Your task to perform on an android device: Open network settings Image 0: 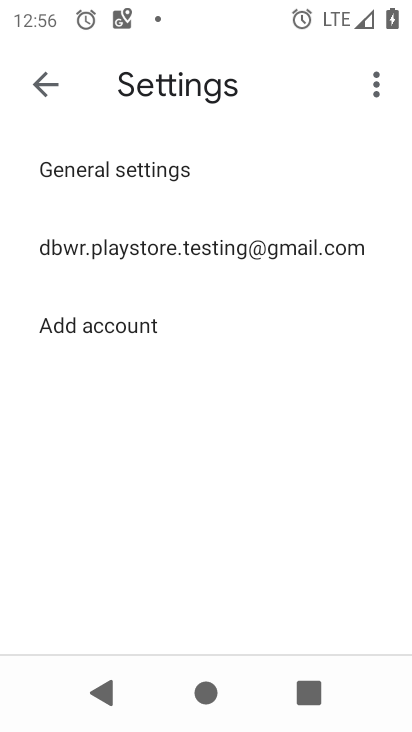
Step 0: press home button
Your task to perform on an android device: Open network settings Image 1: 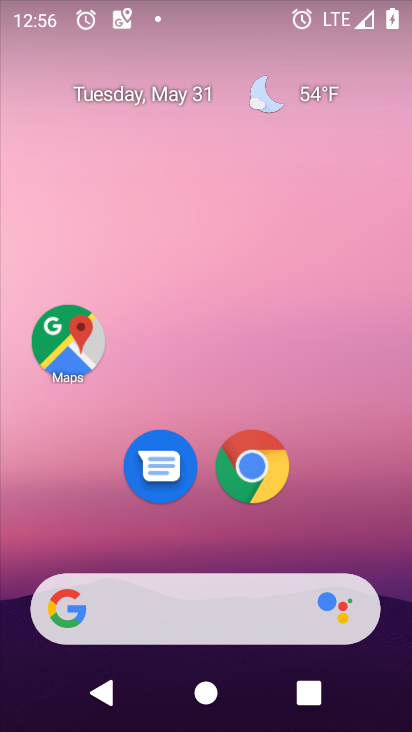
Step 1: drag from (173, 615) to (103, 70)
Your task to perform on an android device: Open network settings Image 2: 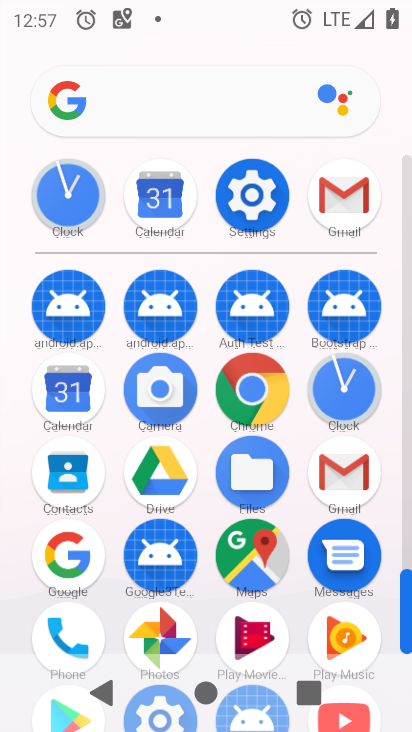
Step 2: click (226, 181)
Your task to perform on an android device: Open network settings Image 3: 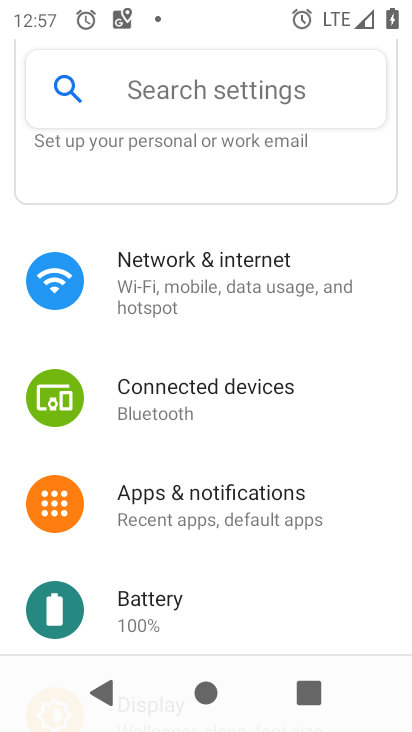
Step 3: click (130, 279)
Your task to perform on an android device: Open network settings Image 4: 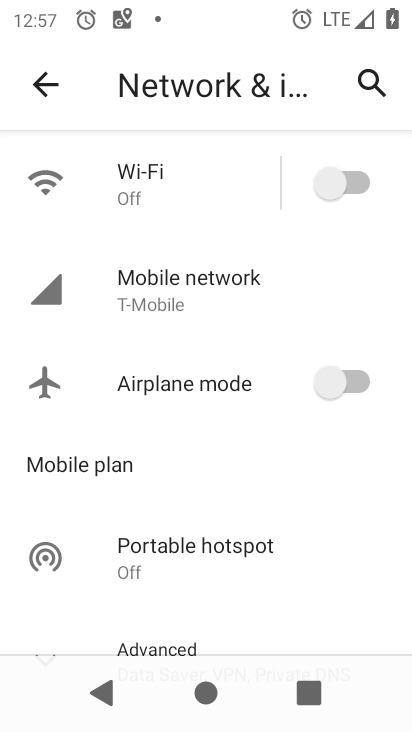
Step 4: task complete